Your task to perform on an android device: find photos in the google photos app Image 0: 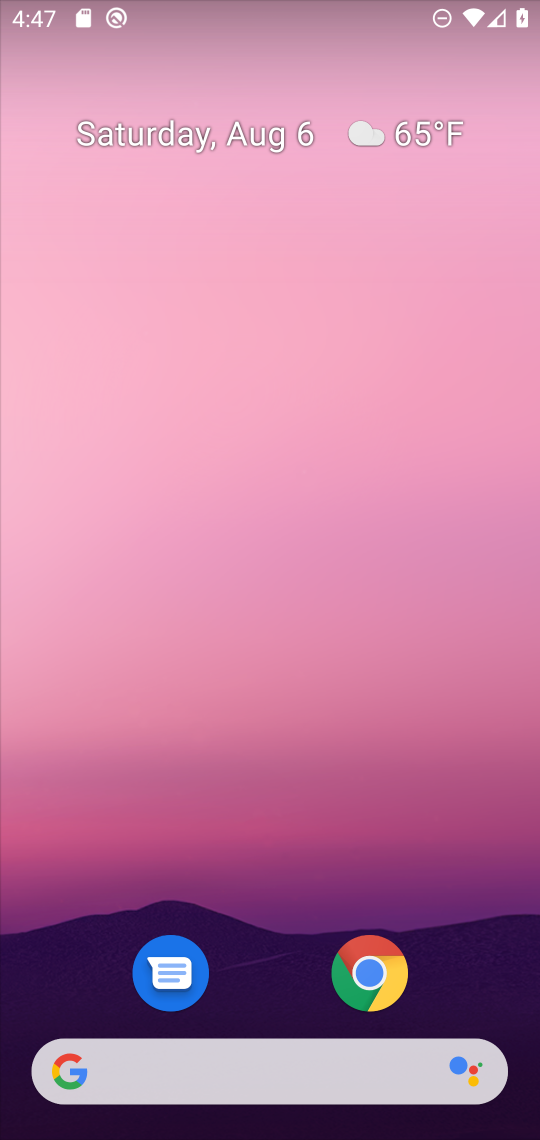
Step 0: drag from (278, 971) to (280, 182)
Your task to perform on an android device: find photos in the google photos app Image 1: 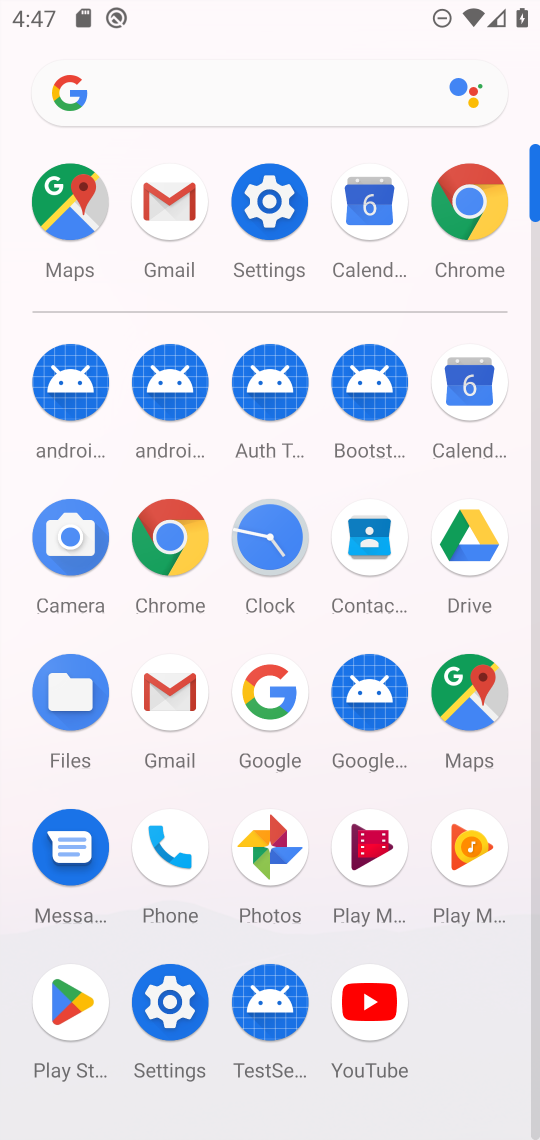
Step 1: click (271, 846)
Your task to perform on an android device: find photos in the google photos app Image 2: 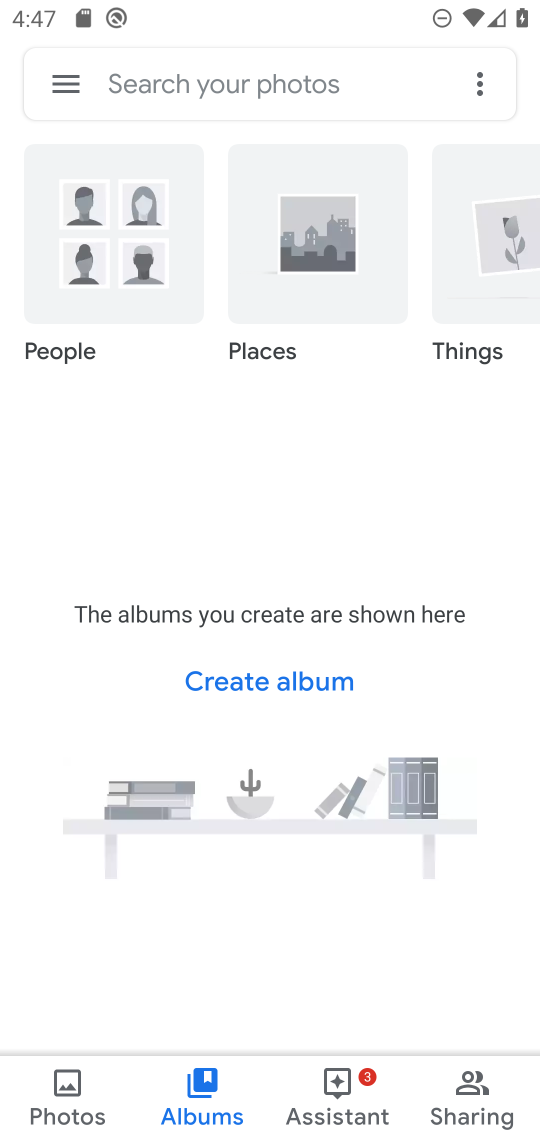
Step 2: click (82, 1071)
Your task to perform on an android device: find photos in the google photos app Image 3: 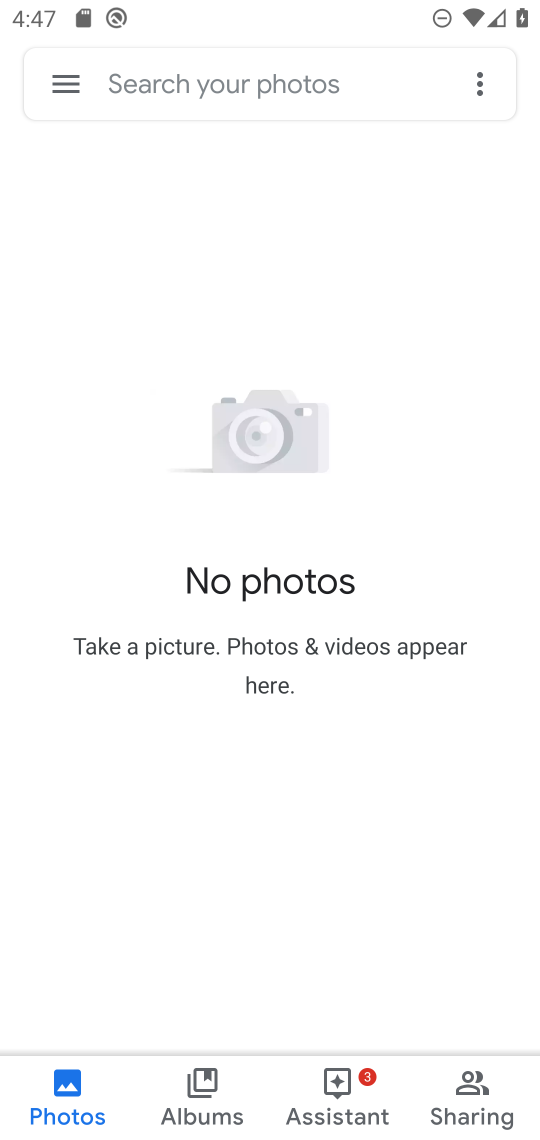
Step 3: task complete